Your task to perform on an android device: Search for a sofa on article.com Image 0: 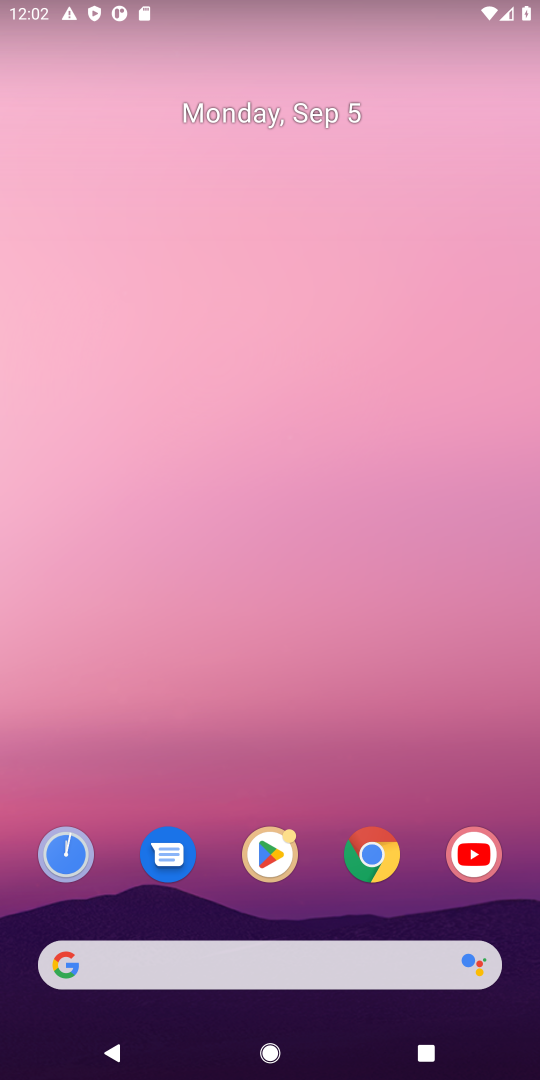
Step 0: press home button
Your task to perform on an android device: Search for a sofa on article.com Image 1: 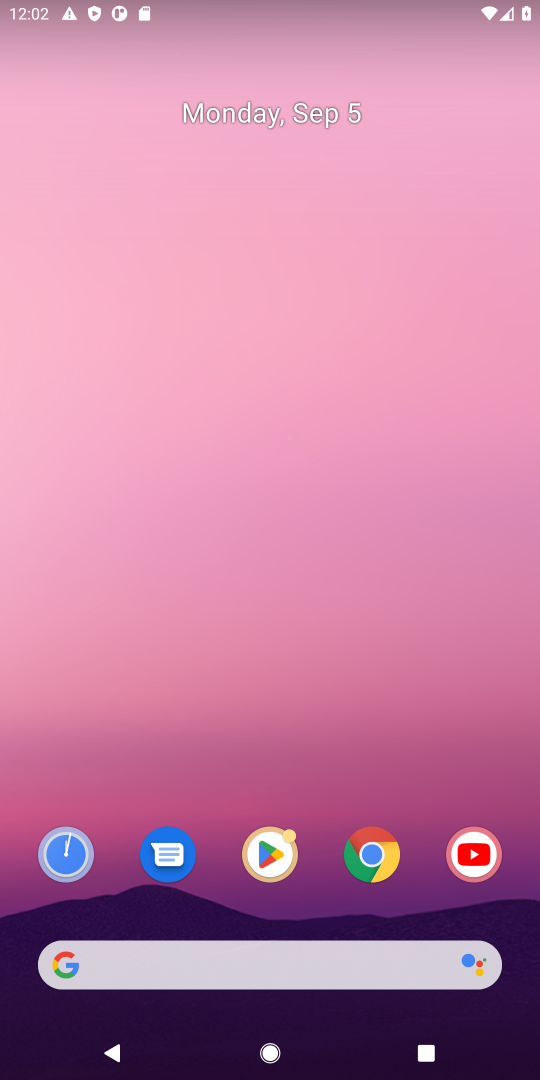
Step 1: click (318, 965)
Your task to perform on an android device: Search for a sofa on article.com Image 2: 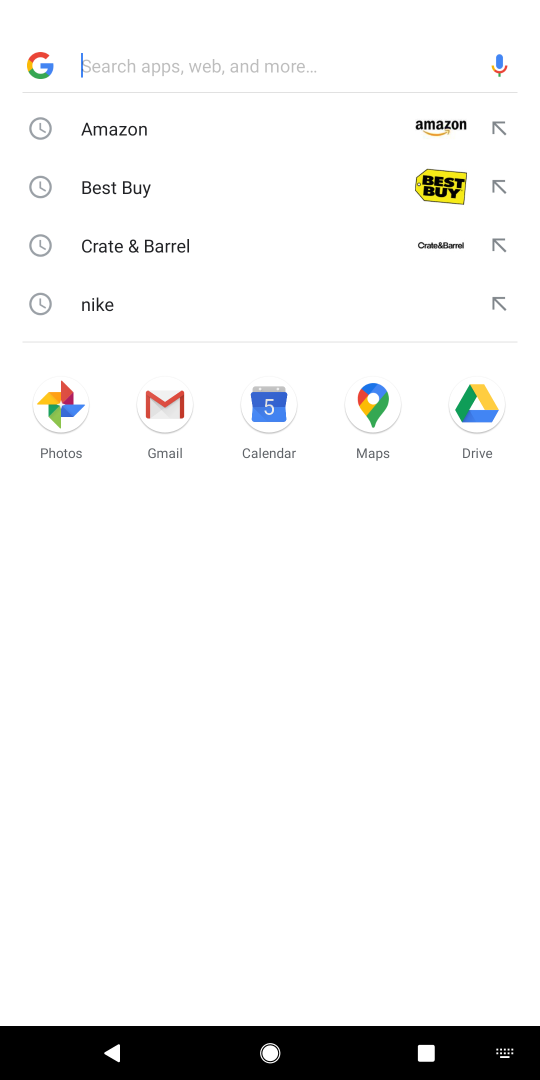
Step 2: type "article.com"
Your task to perform on an android device: Search for a sofa on article.com Image 3: 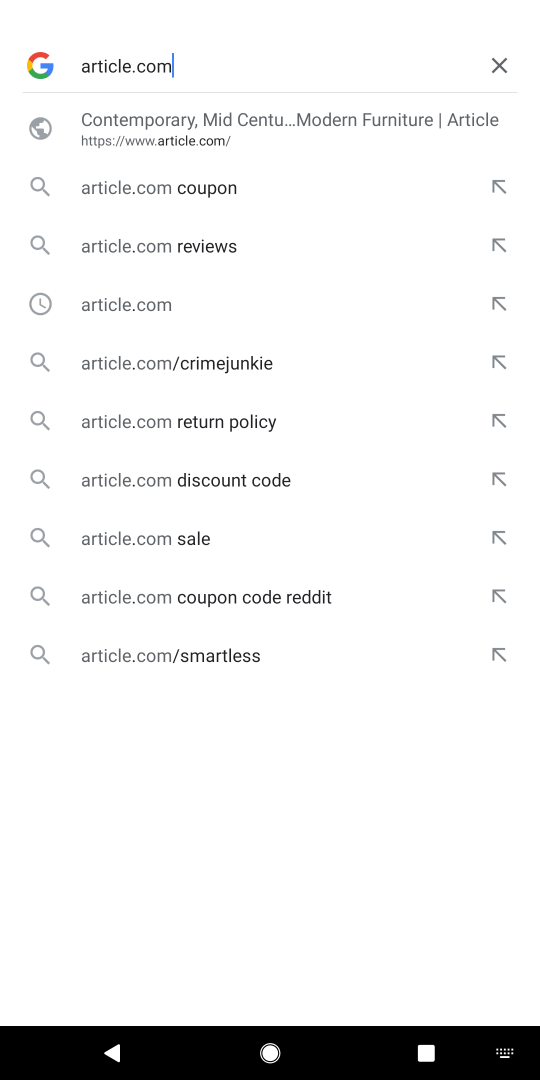
Step 3: press enter
Your task to perform on an android device: Search for a sofa on article.com Image 4: 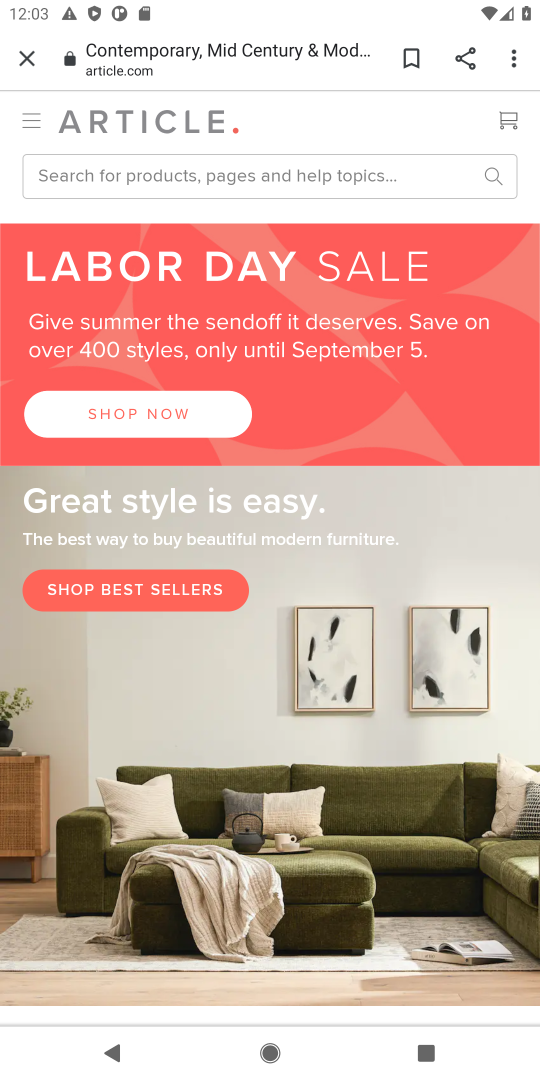
Step 4: click (129, 184)
Your task to perform on an android device: Search for a sofa on article.com Image 5: 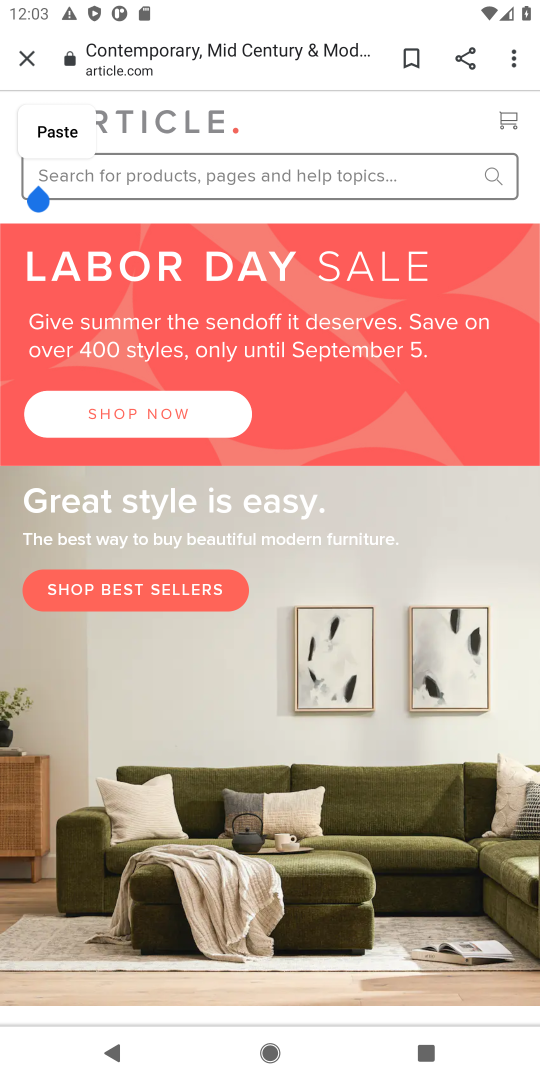
Step 5: type "sofa"
Your task to perform on an android device: Search for a sofa on article.com Image 6: 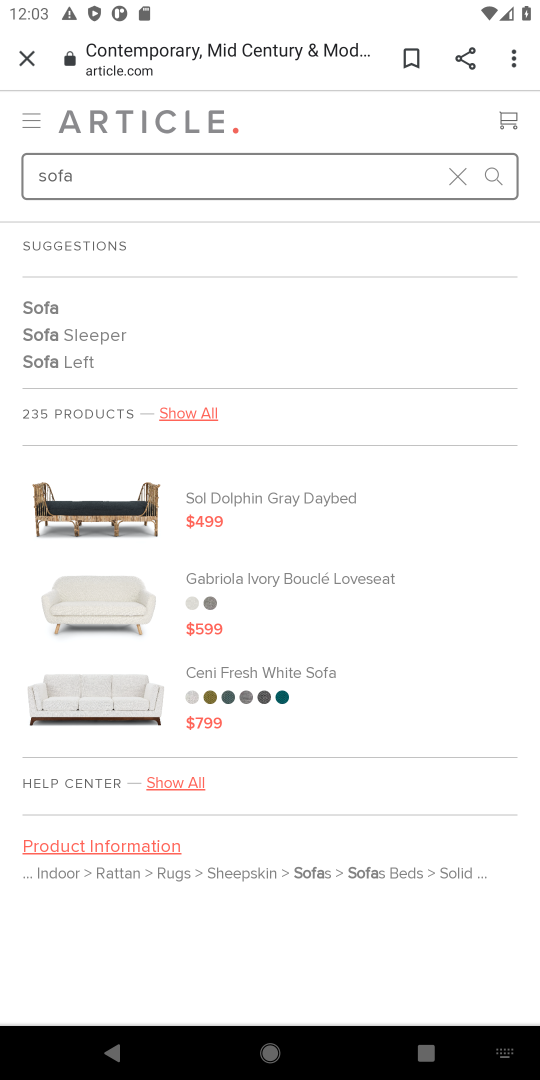
Step 6: task complete